Your task to perform on an android device: Open the map Image 0: 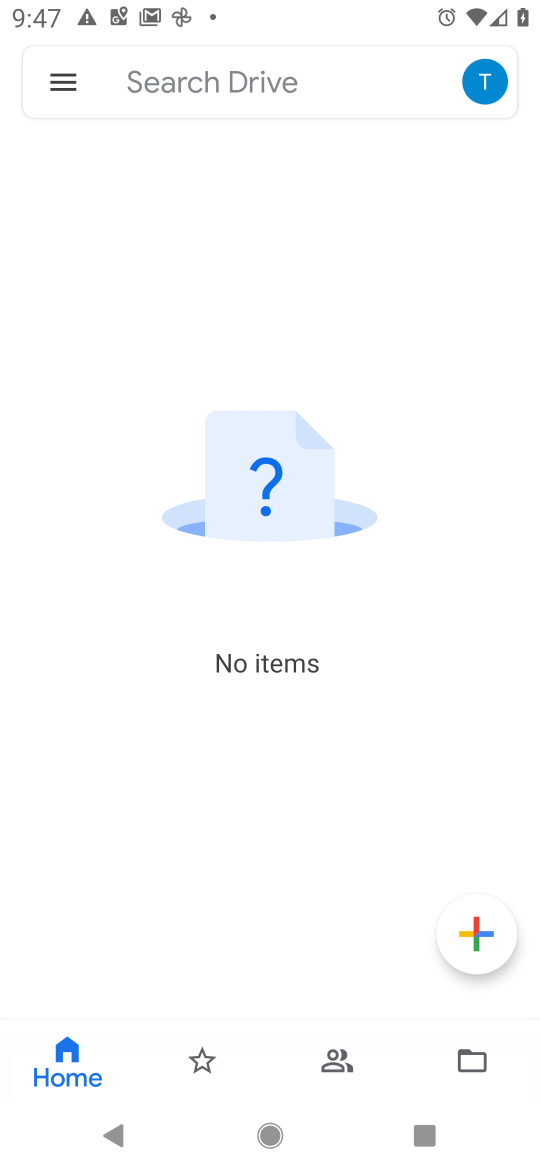
Step 0: press home button
Your task to perform on an android device: Open the map Image 1: 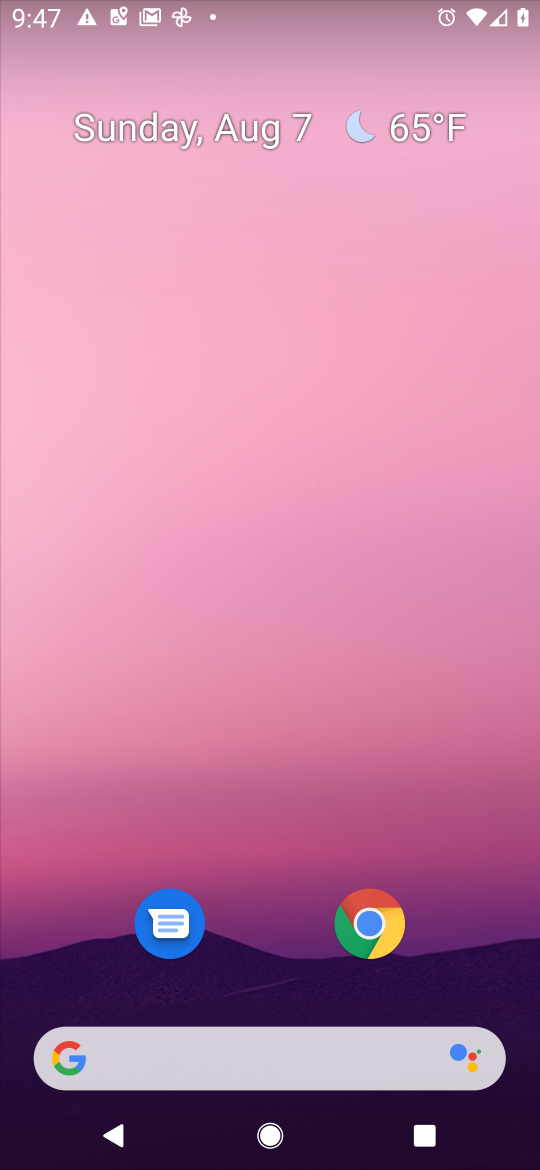
Step 1: drag from (500, 978) to (265, 26)
Your task to perform on an android device: Open the map Image 2: 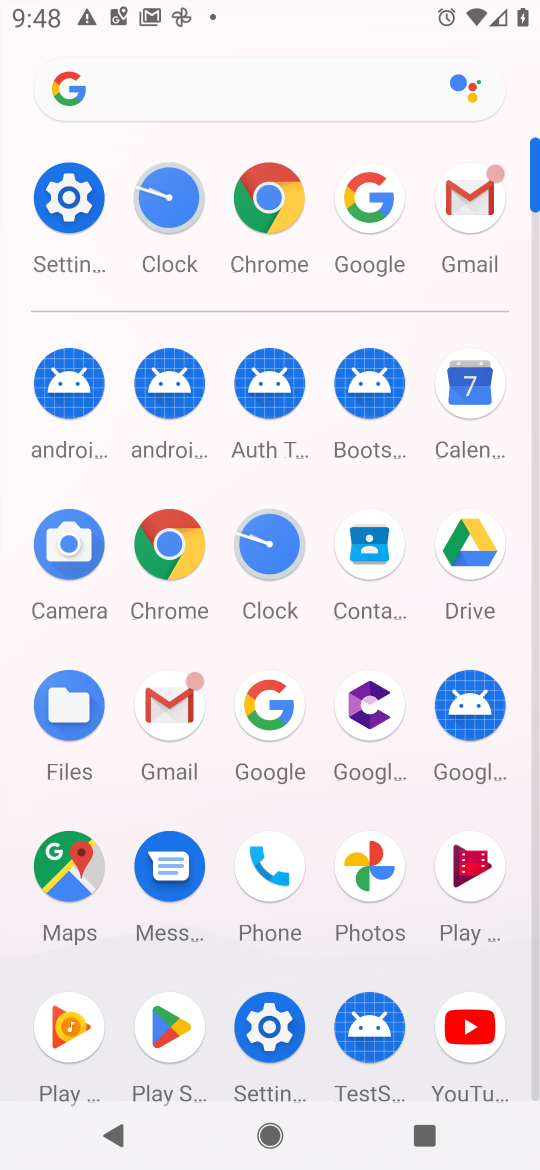
Step 2: click (88, 875)
Your task to perform on an android device: Open the map Image 3: 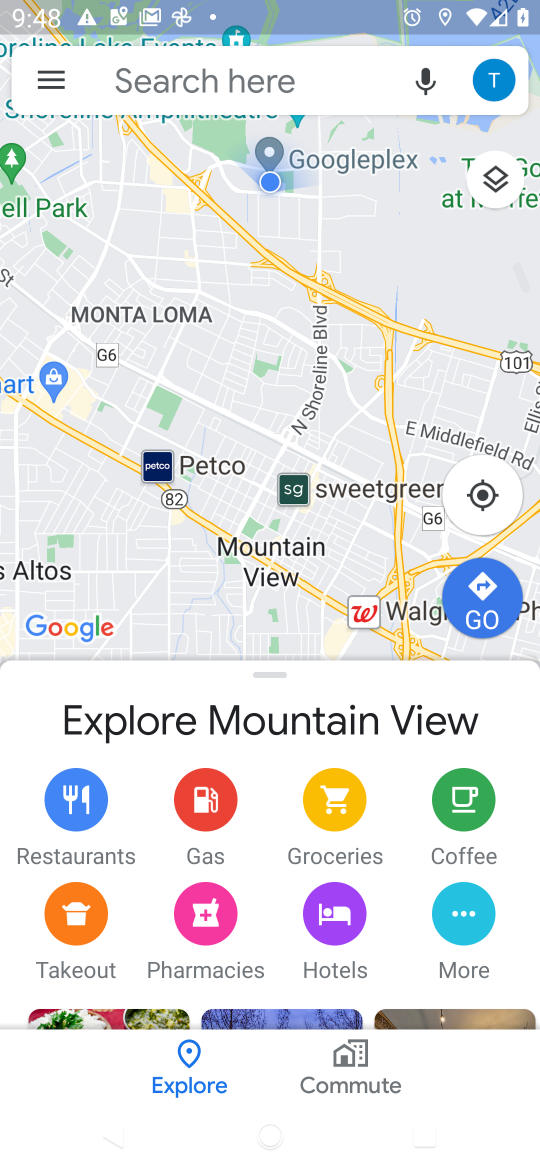
Step 3: task complete